Your task to perform on an android device: Clear the cart on ebay. Image 0: 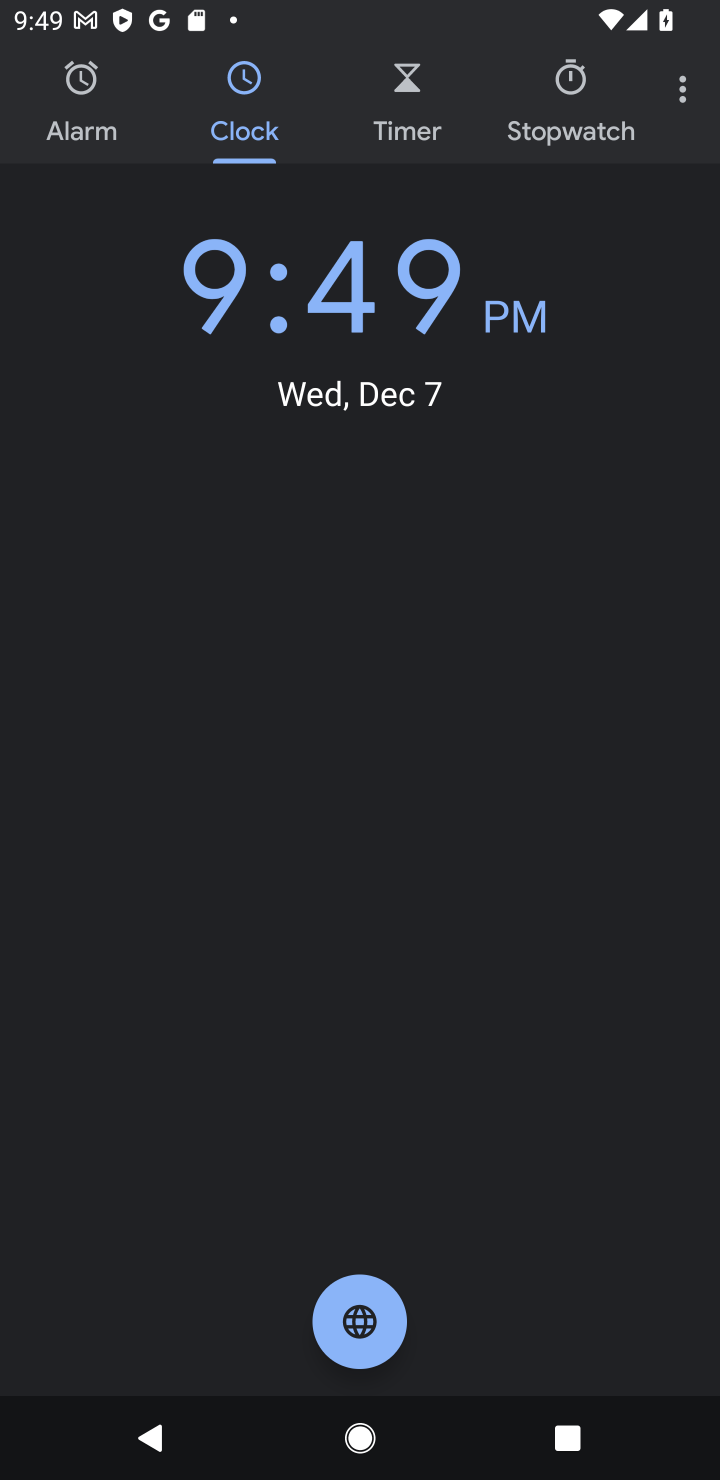
Step 0: press home button
Your task to perform on an android device: Clear the cart on ebay. Image 1: 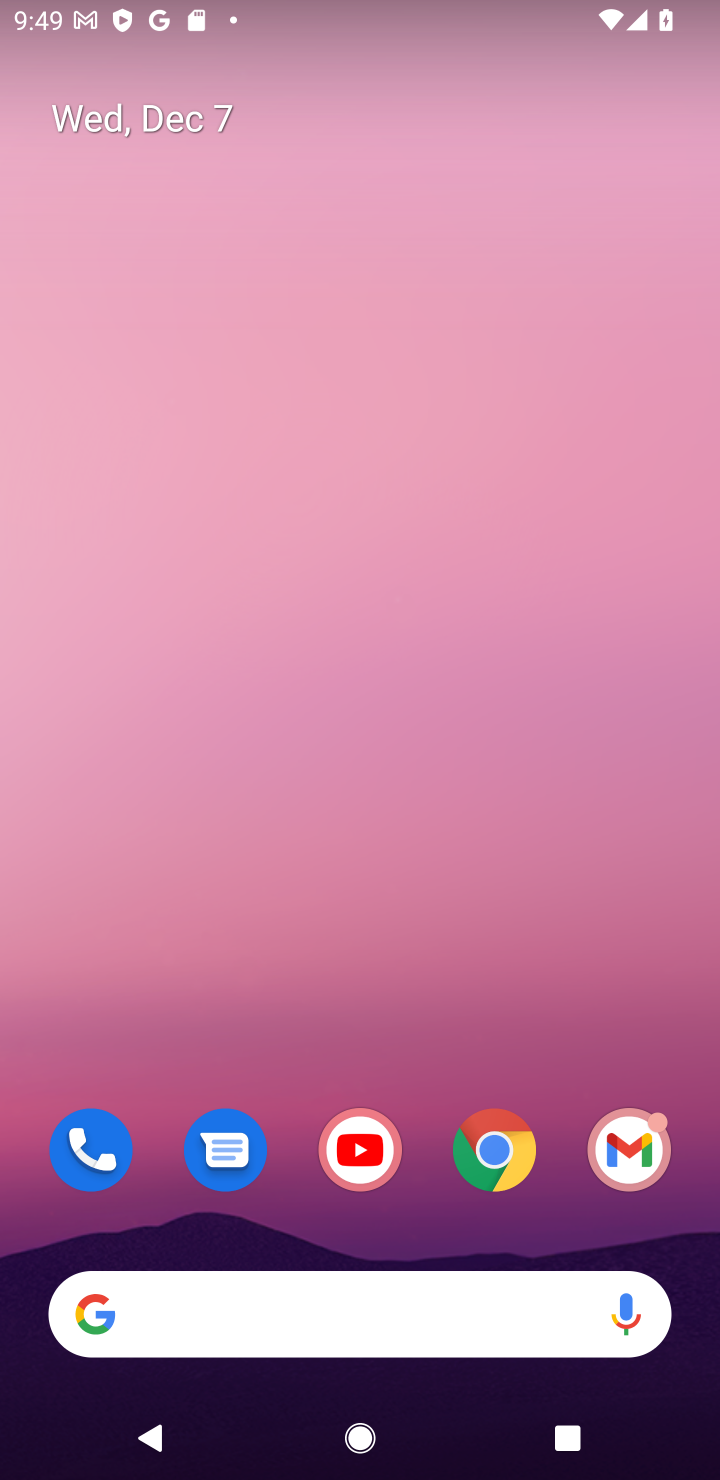
Step 1: click (497, 1158)
Your task to perform on an android device: Clear the cart on ebay. Image 2: 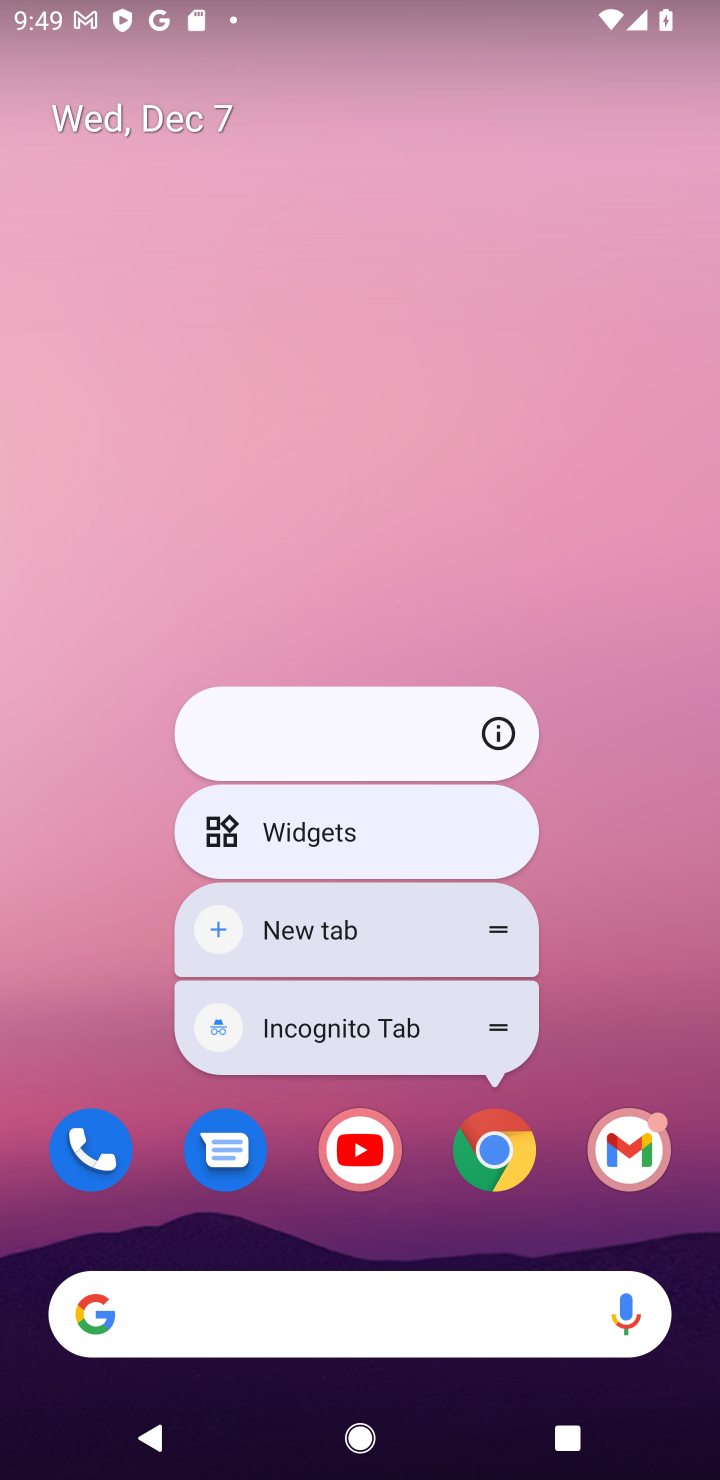
Step 2: click (499, 1176)
Your task to perform on an android device: Clear the cart on ebay. Image 3: 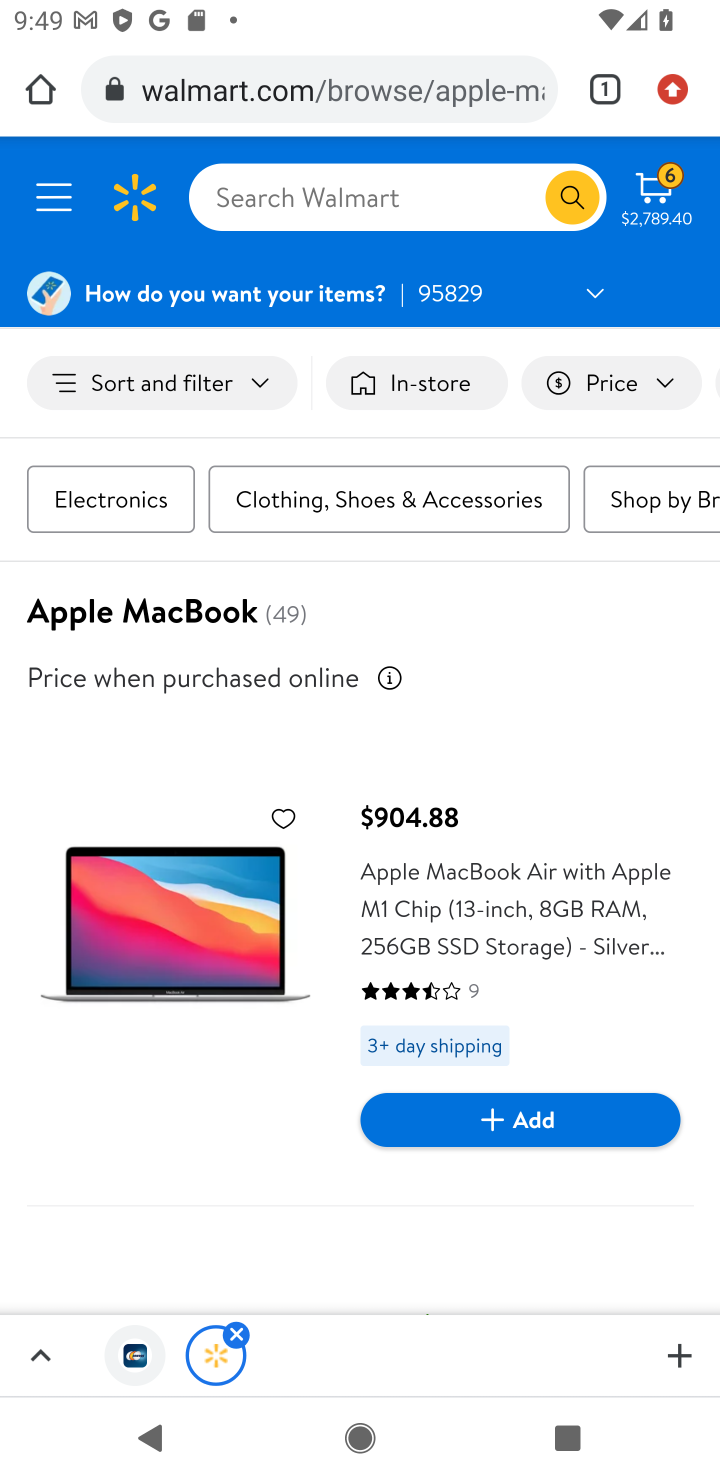
Step 3: click (458, 78)
Your task to perform on an android device: Clear the cart on ebay. Image 4: 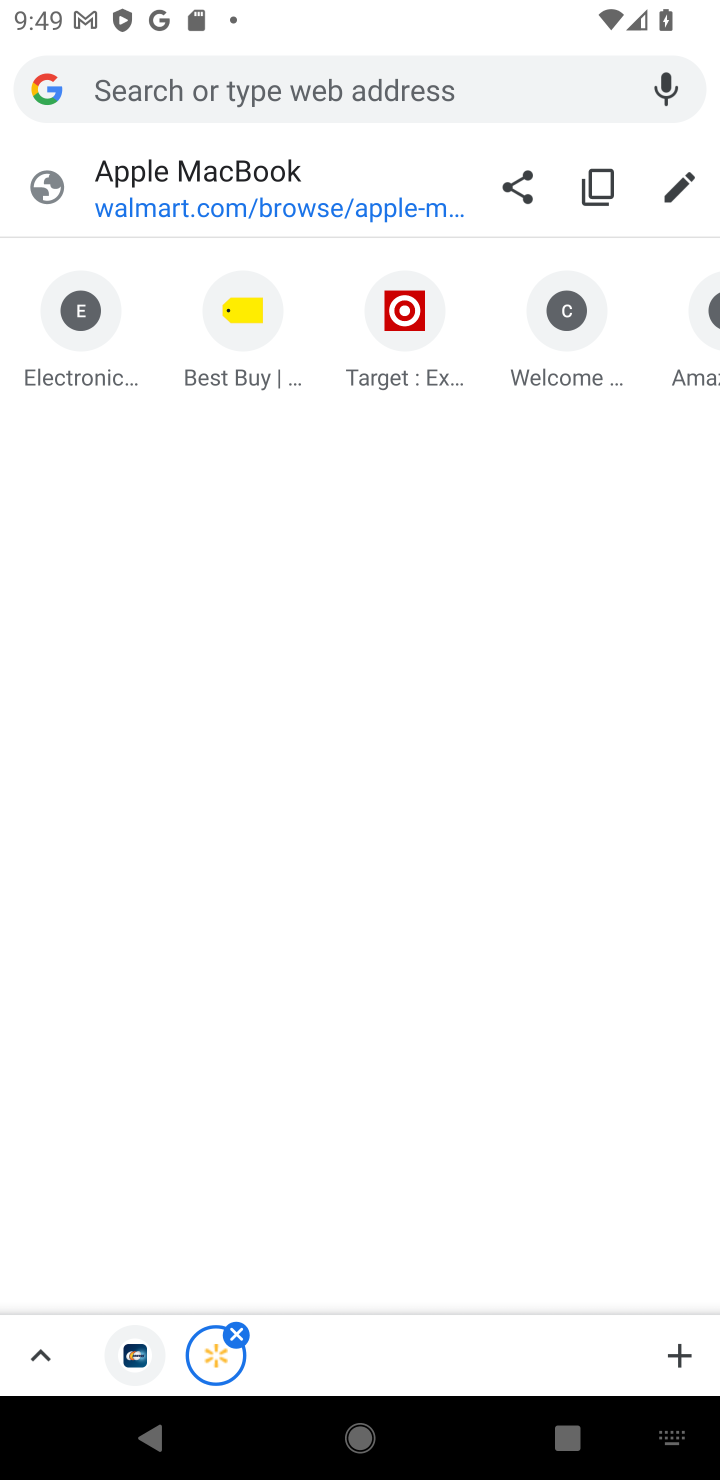
Step 4: type "ebay"
Your task to perform on an android device: Clear the cart on ebay. Image 5: 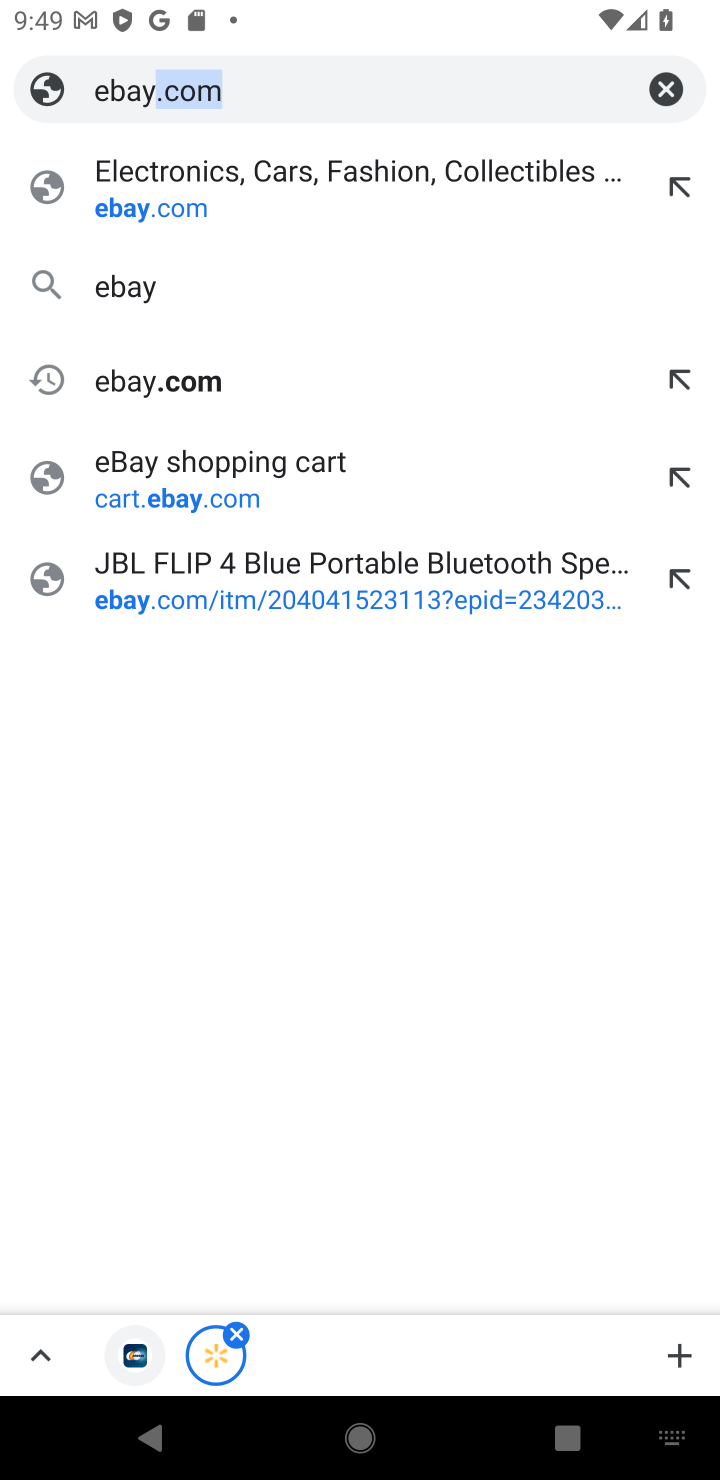
Step 5: click (135, 282)
Your task to perform on an android device: Clear the cart on ebay. Image 6: 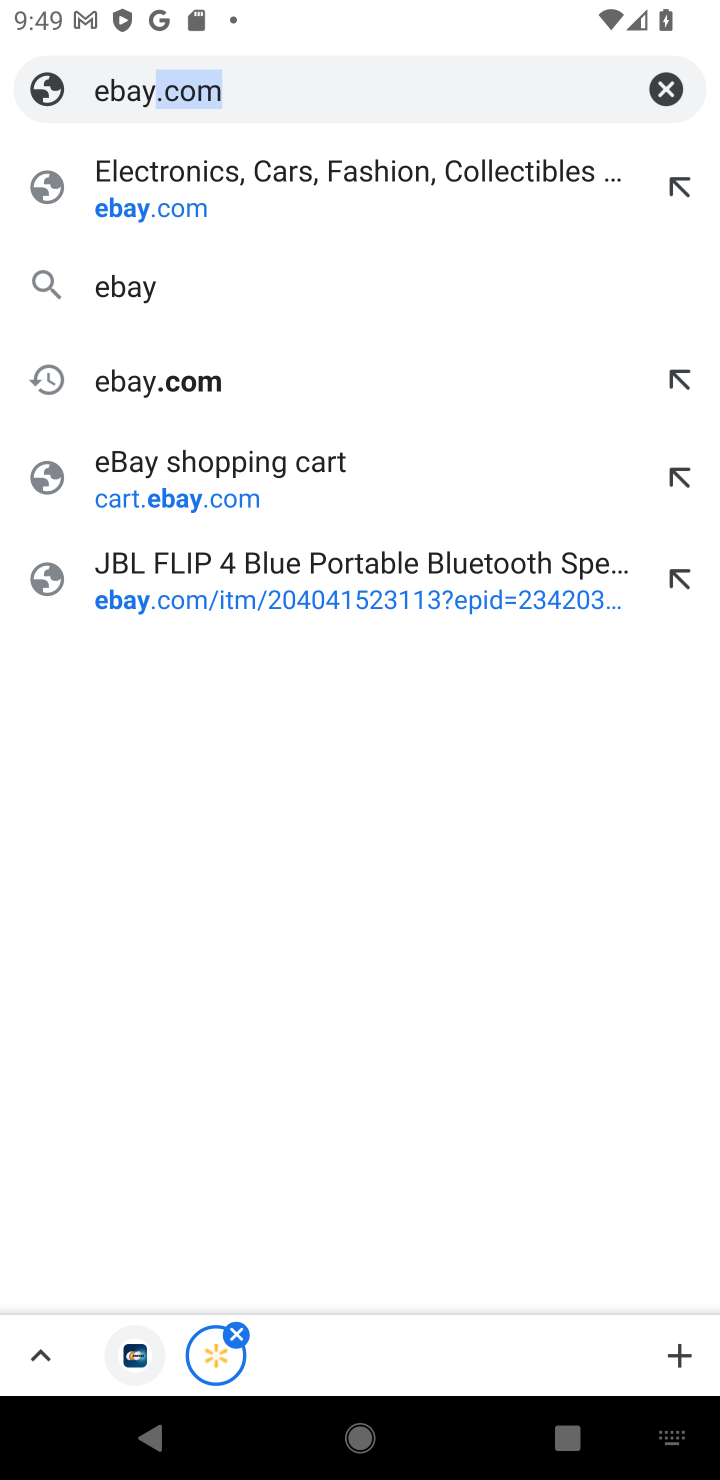
Step 6: click (195, 377)
Your task to perform on an android device: Clear the cart on ebay. Image 7: 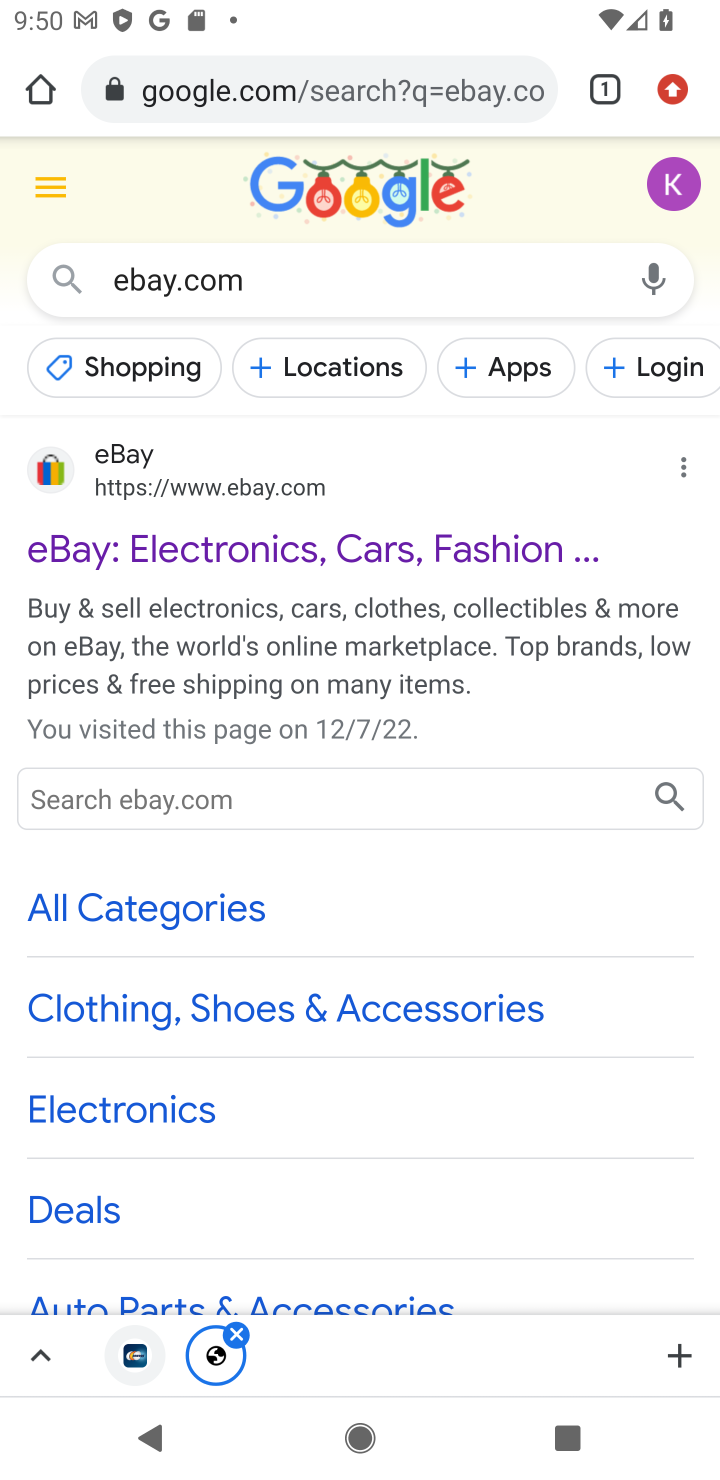
Step 7: click (197, 477)
Your task to perform on an android device: Clear the cart on ebay. Image 8: 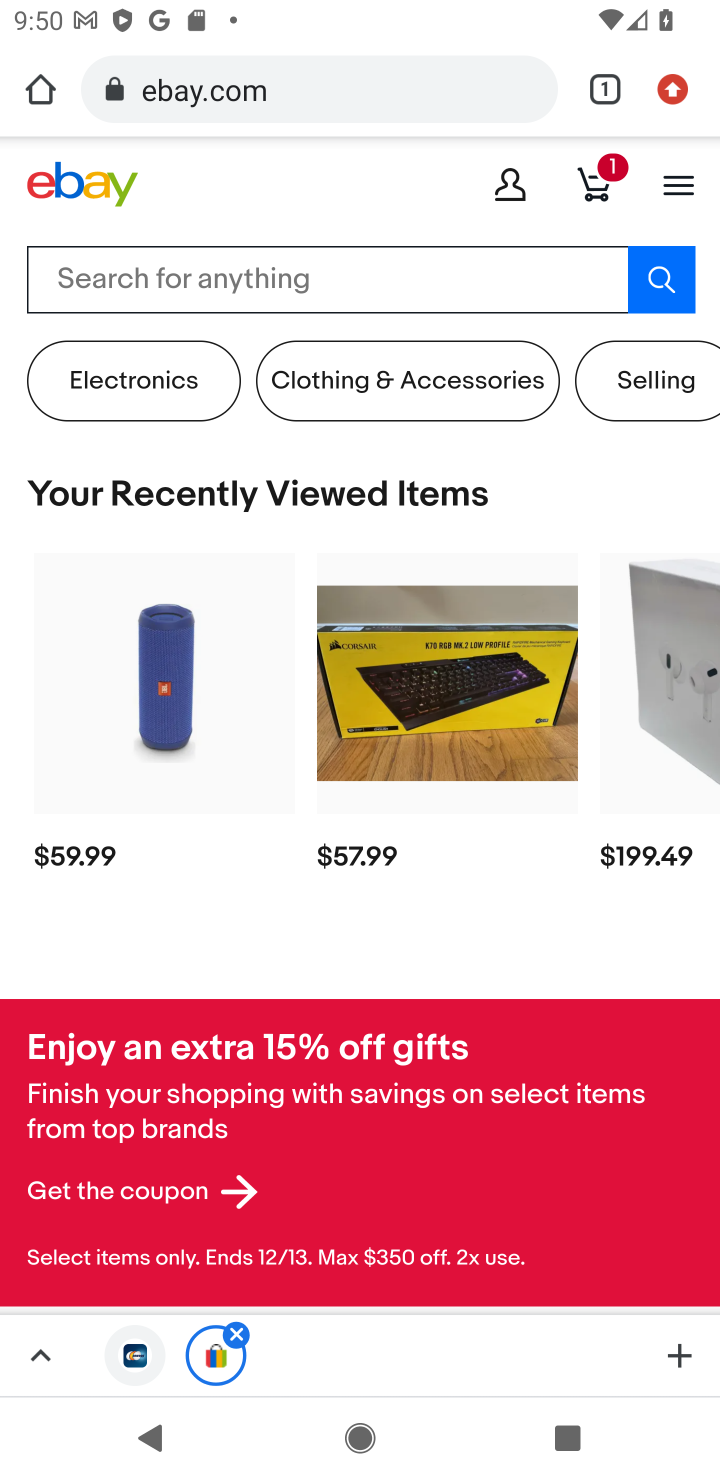
Step 8: click (594, 184)
Your task to perform on an android device: Clear the cart on ebay. Image 9: 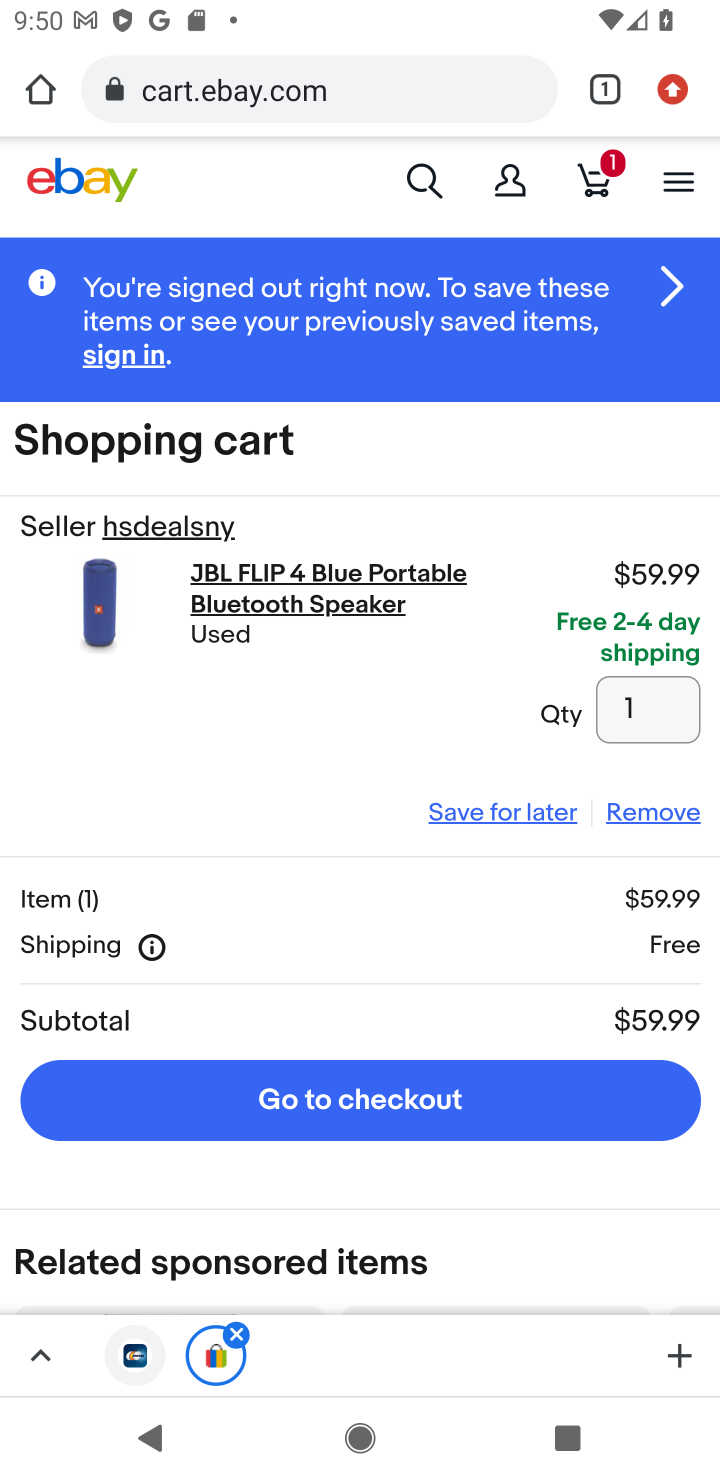
Step 9: click (645, 799)
Your task to perform on an android device: Clear the cart on ebay. Image 10: 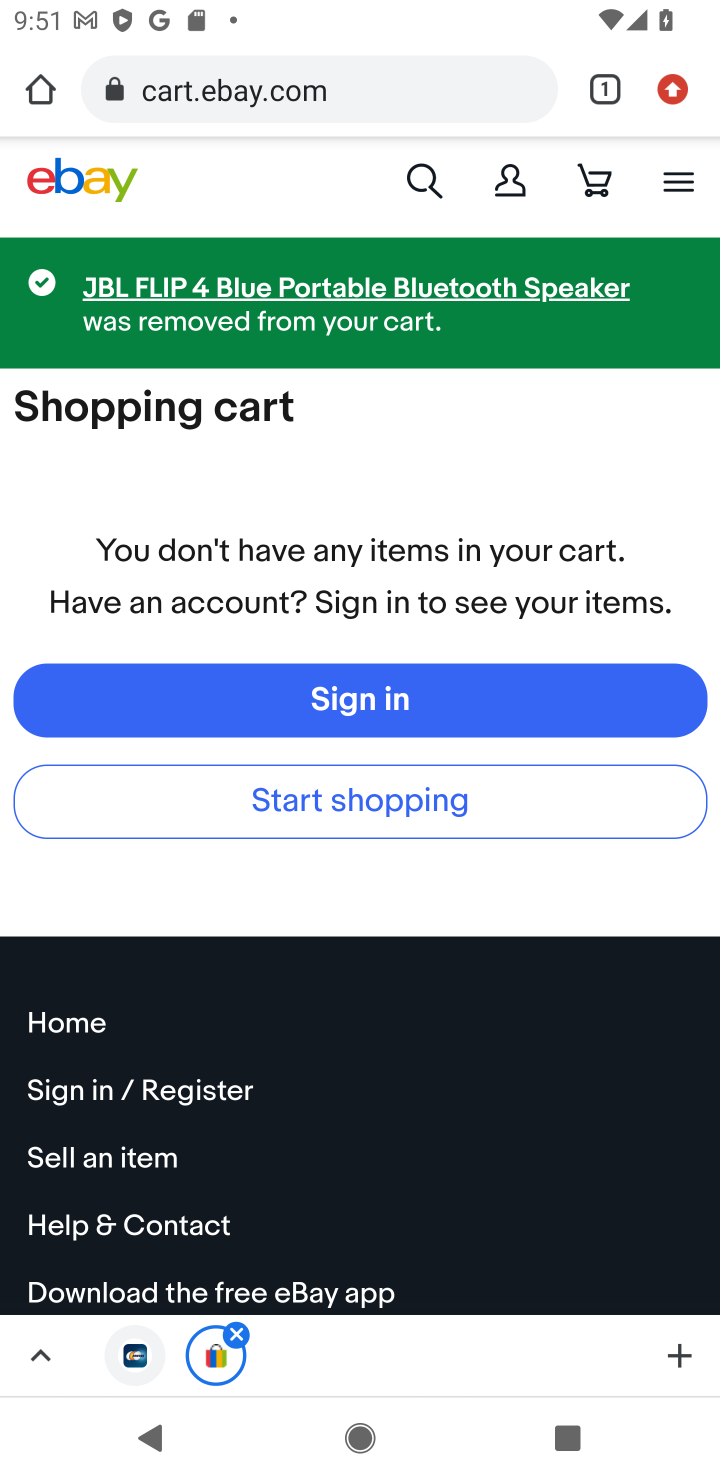
Step 10: task complete